Your task to perform on an android device: Turn off the flashlight Image 0: 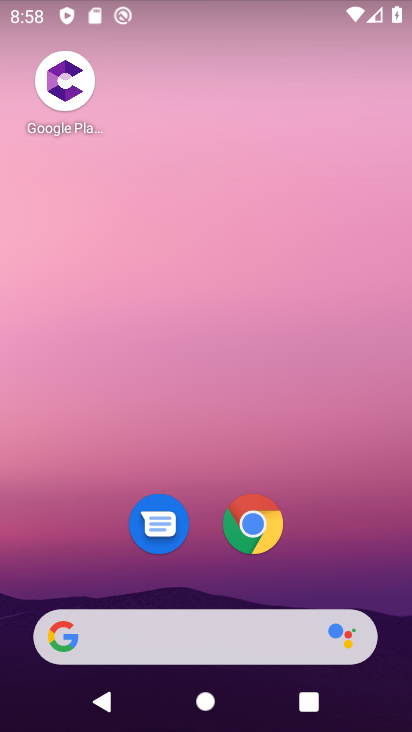
Step 0: drag from (263, 457) to (205, 59)
Your task to perform on an android device: Turn off the flashlight Image 1: 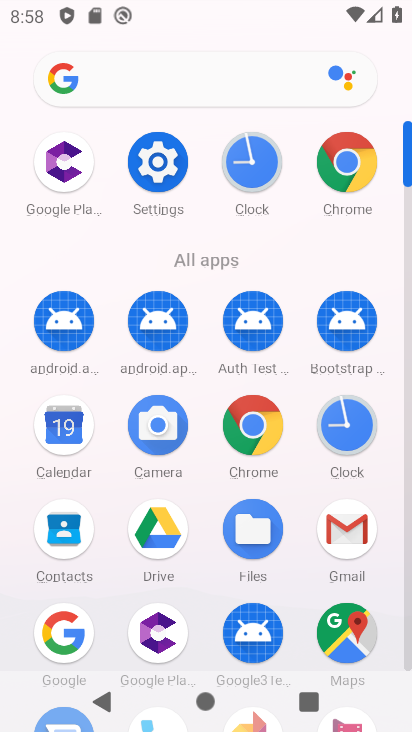
Step 1: click (173, 148)
Your task to perform on an android device: Turn off the flashlight Image 2: 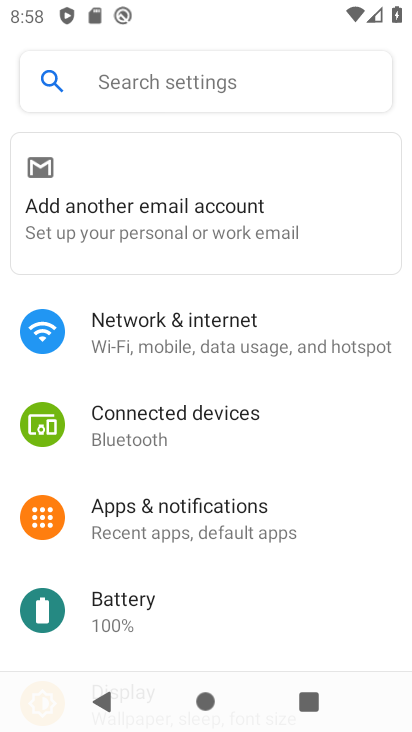
Step 2: click (212, 84)
Your task to perform on an android device: Turn off the flashlight Image 3: 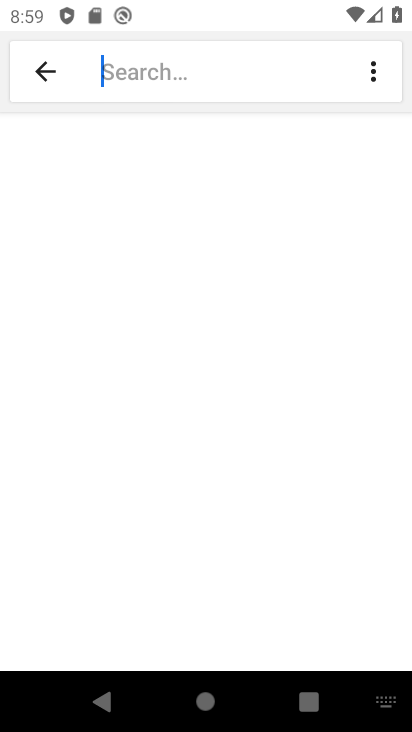
Step 3: type "Flashlight"
Your task to perform on an android device: Turn off the flashlight Image 4: 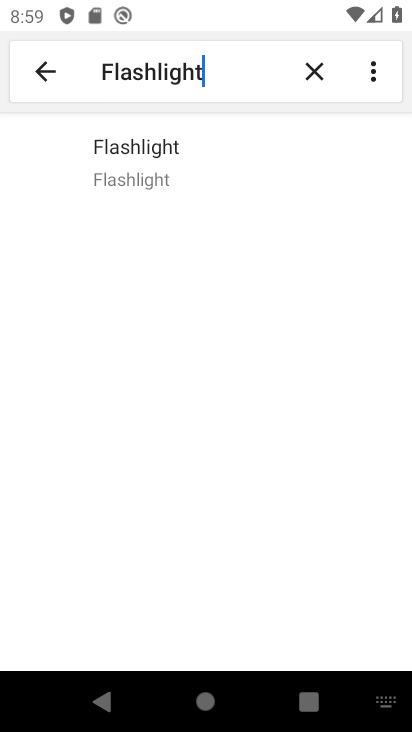
Step 4: click (142, 158)
Your task to perform on an android device: Turn off the flashlight Image 5: 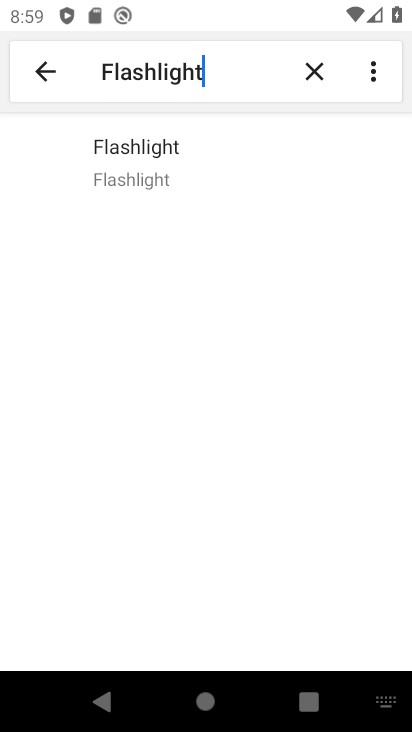
Step 5: click (142, 155)
Your task to perform on an android device: Turn off the flashlight Image 6: 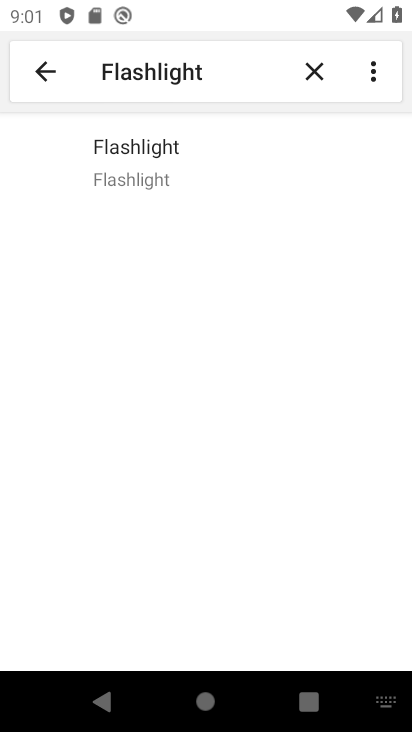
Step 6: task complete